Your task to perform on an android device: Go to Amazon Image 0: 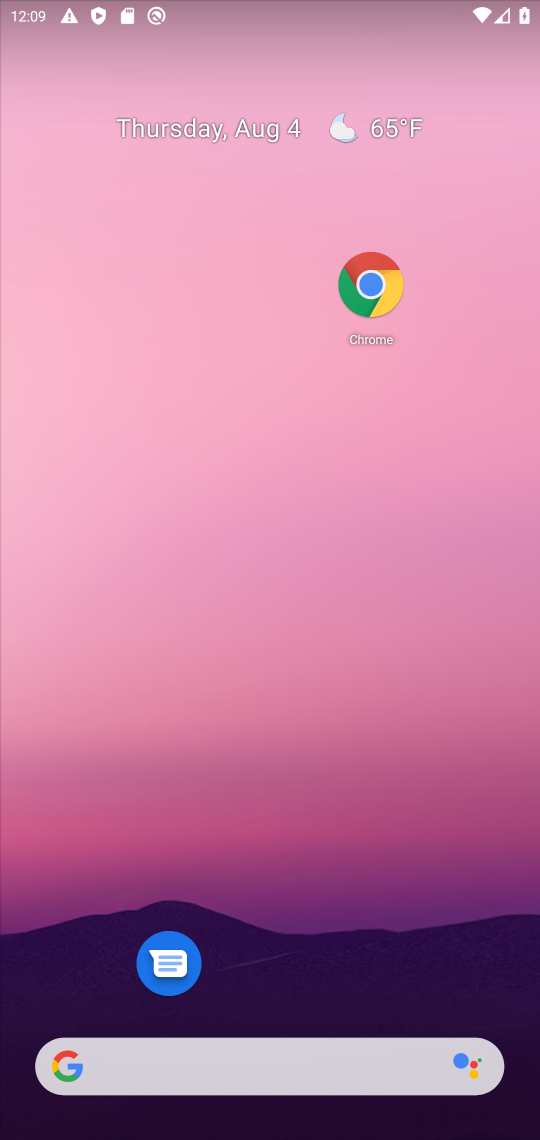
Step 0: drag from (246, 905) to (272, 258)
Your task to perform on an android device: Go to Amazon Image 1: 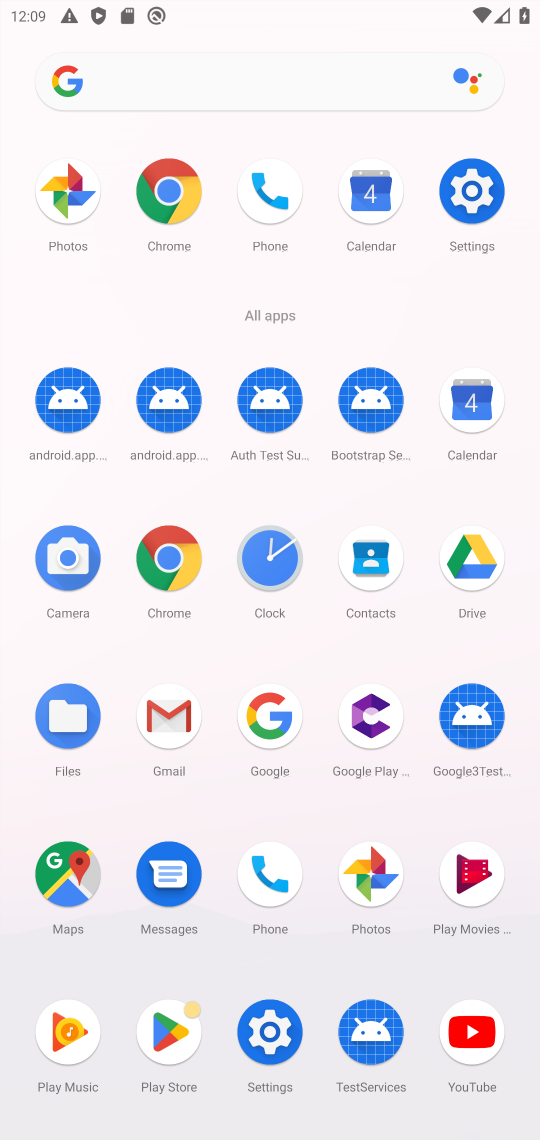
Step 1: click (174, 180)
Your task to perform on an android device: Go to Amazon Image 2: 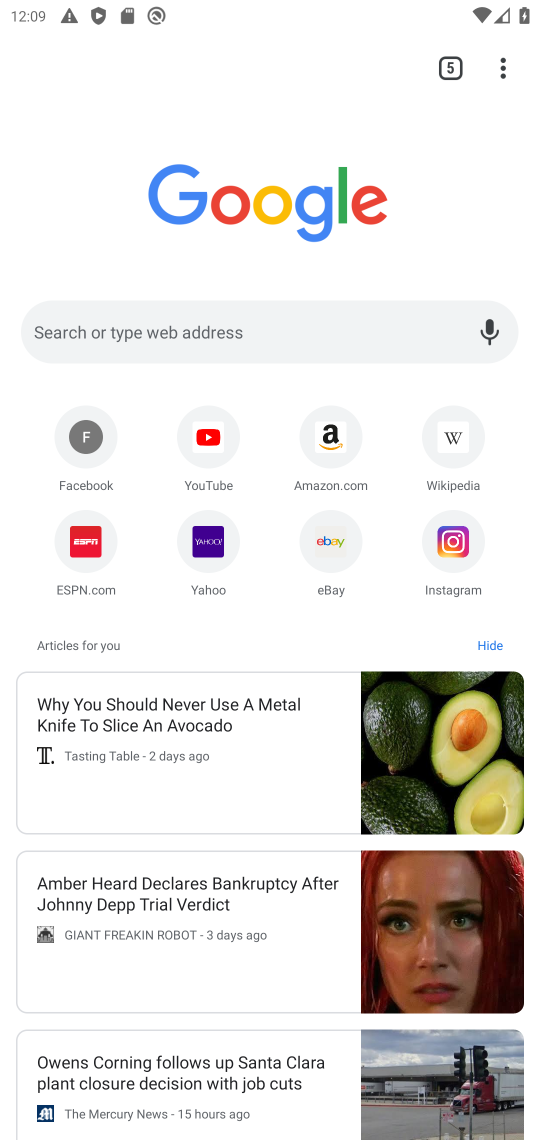
Step 2: click (342, 422)
Your task to perform on an android device: Go to Amazon Image 3: 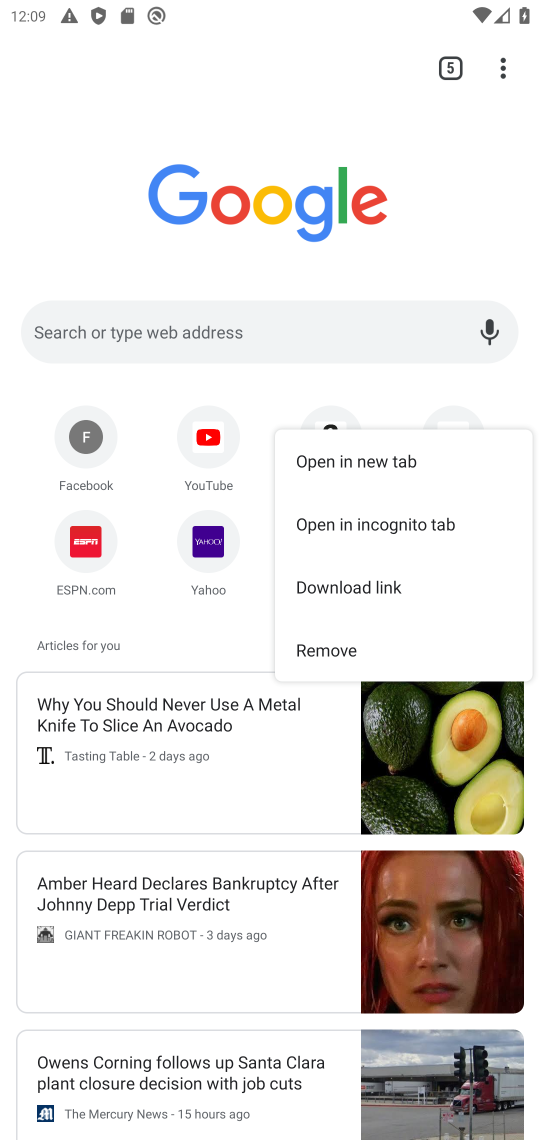
Step 3: click (334, 425)
Your task to perform on an android device: Go to Amazon Image 4: 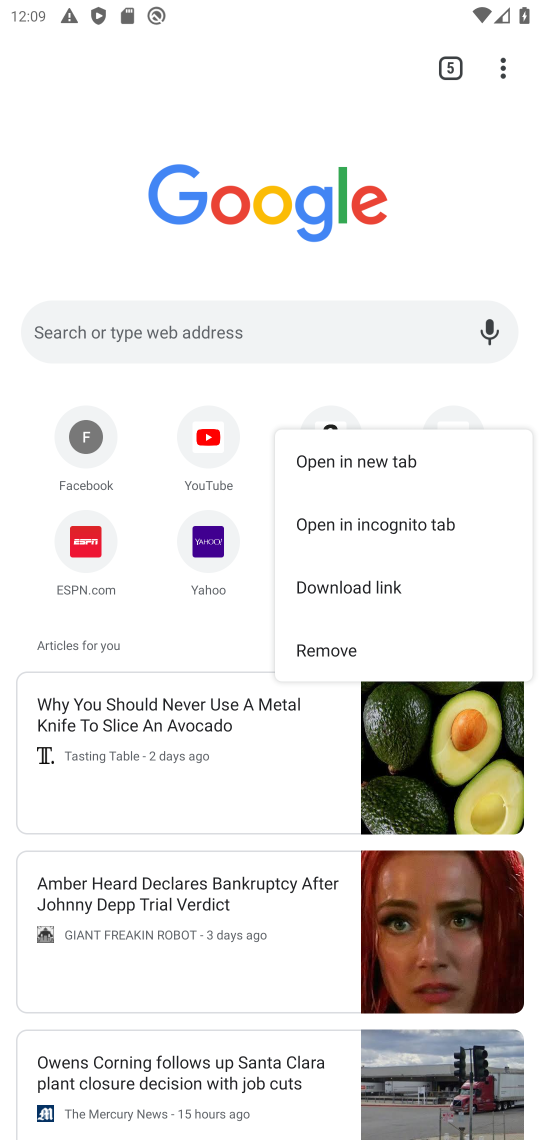
Step 4: click (334, 425)
Your task to perform on an android device: Go to Amazon Image 5: 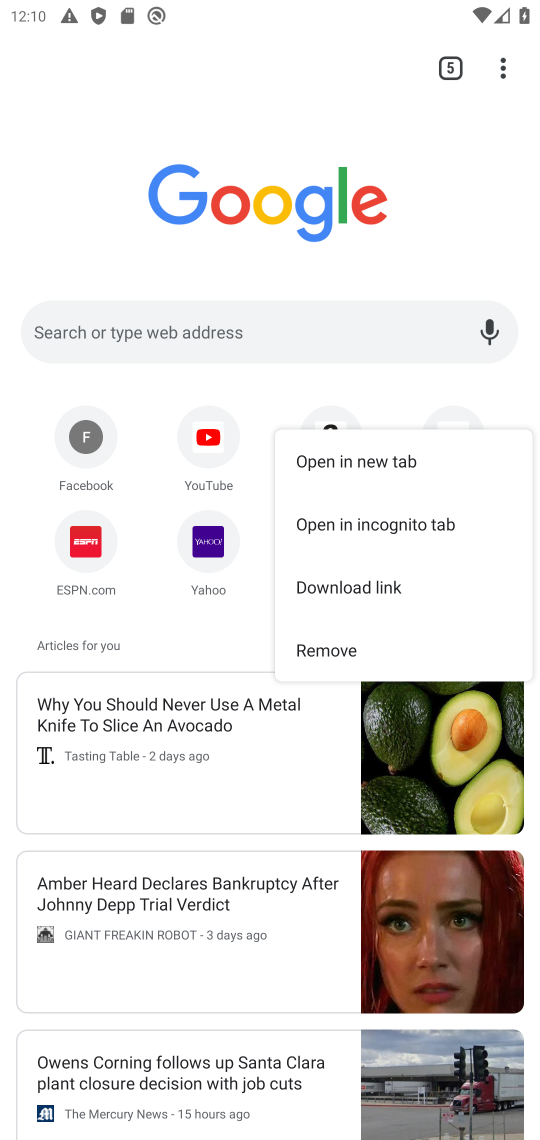
Step 5: click (368, 451)
Your task to perform on an android device: Go to Amazon Image 6: 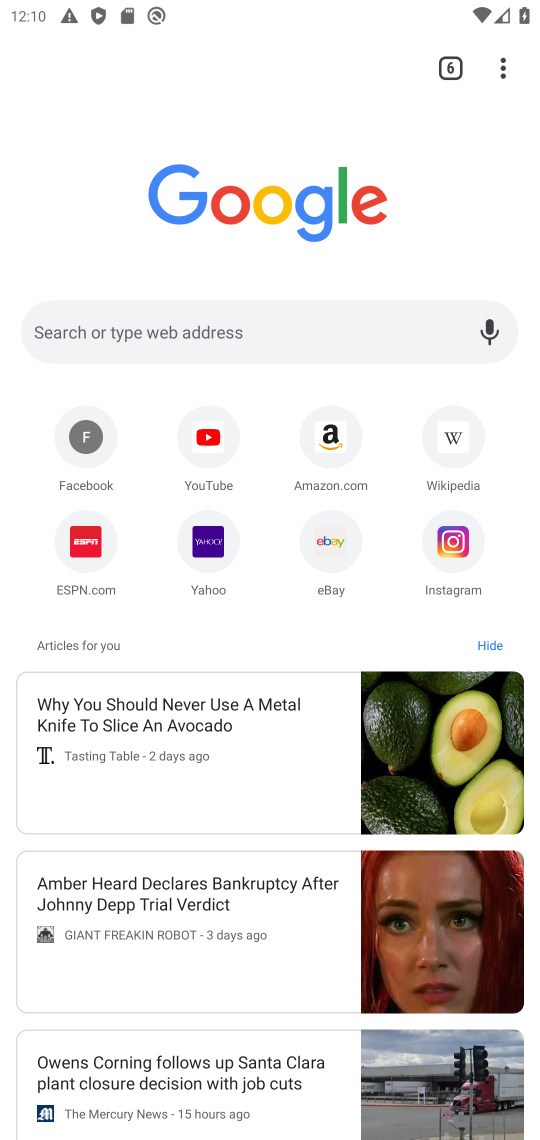
Step 6: click (340, 437)
Your task to perform on an android device: Go to Amazon Image 7: 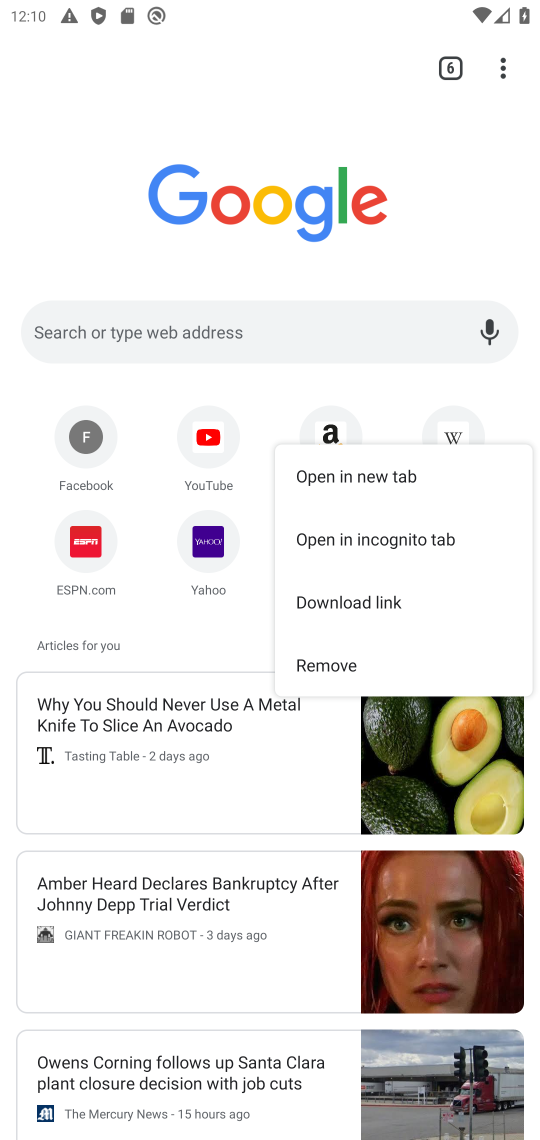
Step 7: click (329, 425)
Your task to perform on an android device: Go to Amazon Image 8: 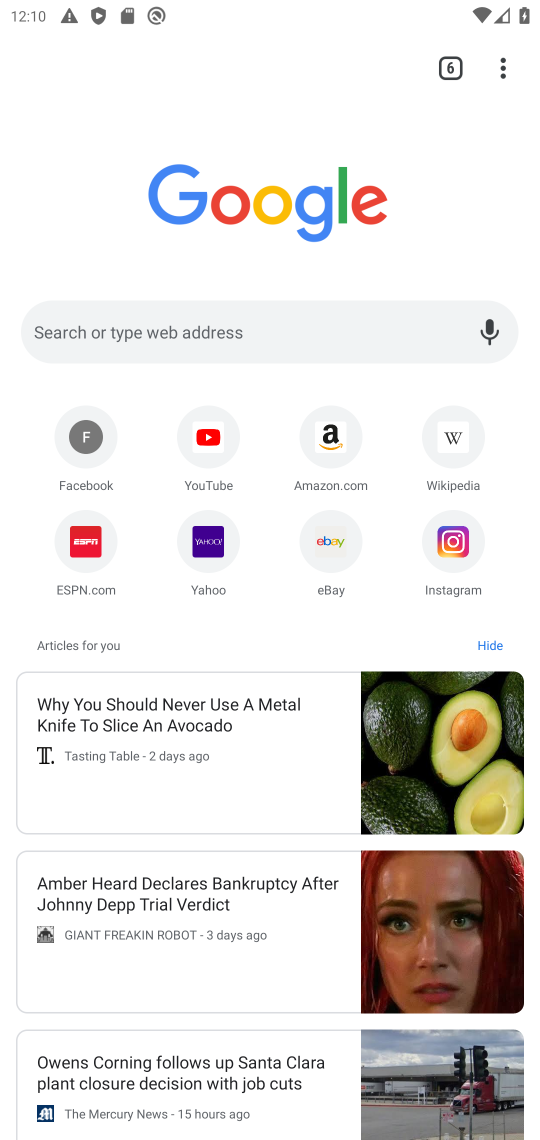
Step 8: click (334, 442)
Your task to perform on an android device: Go to Amazon Image 9: 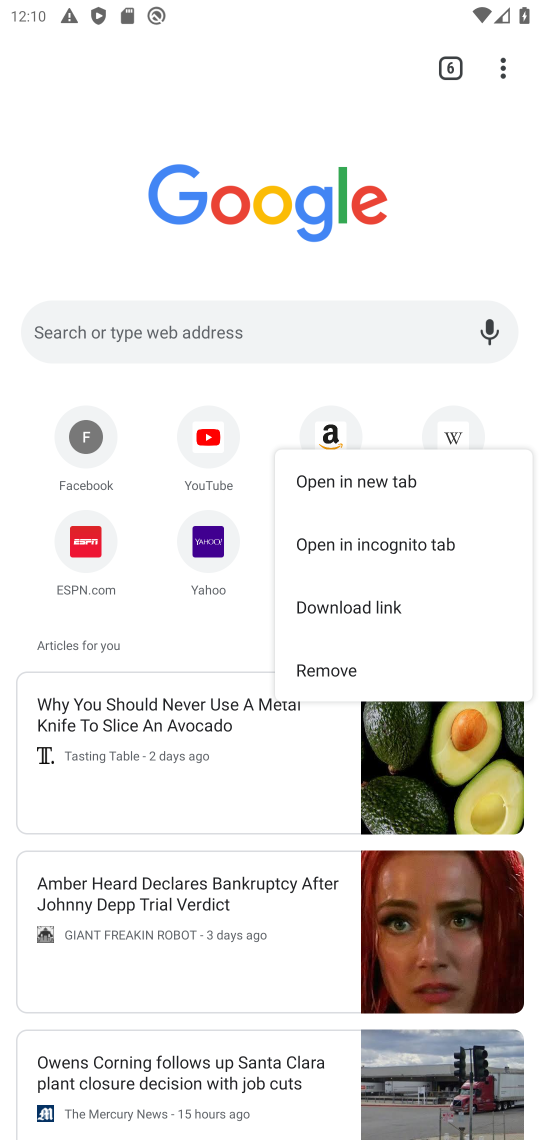
Step 9: click (331, 421)
Your task to perform on an android device: Go to Amazon Image 10: 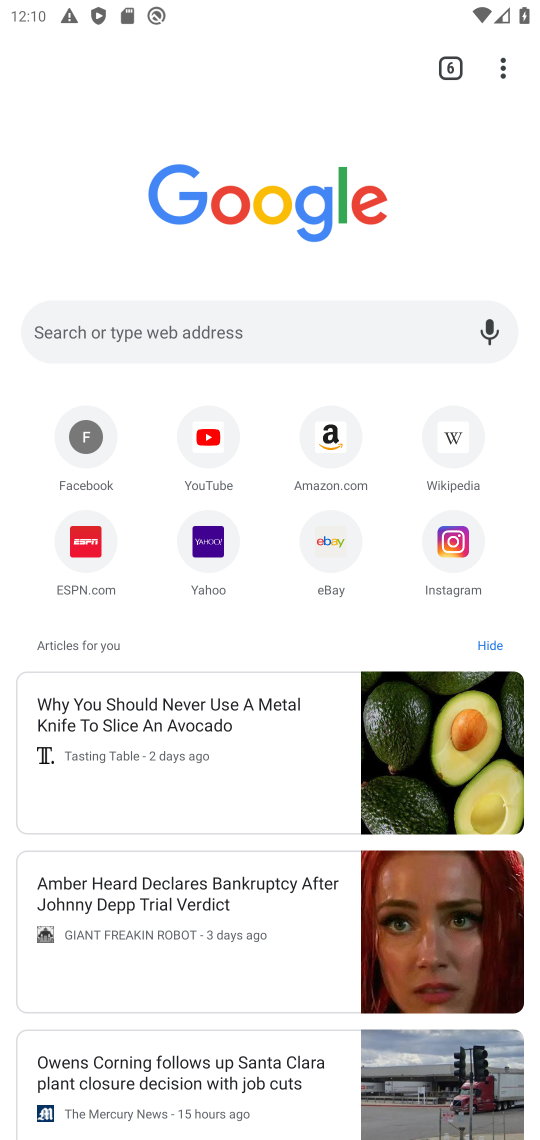
Step 10: click (331, 433)
Your task to perform on an android device: Go to Amazon Image 11: 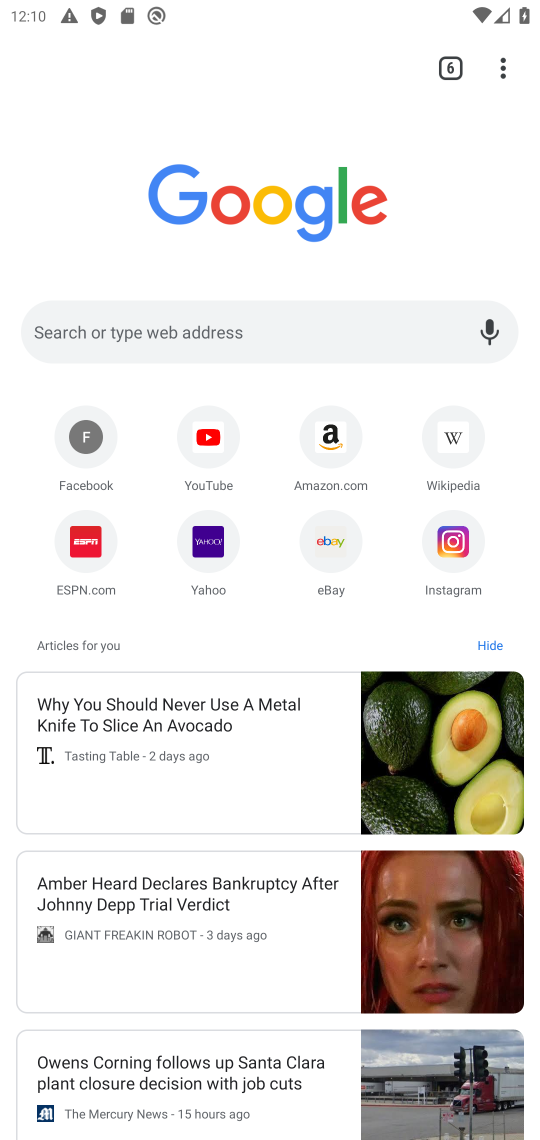
Step 11: click (325, 453)
Your task to perform on an android device: Go to Amazon Image 12: 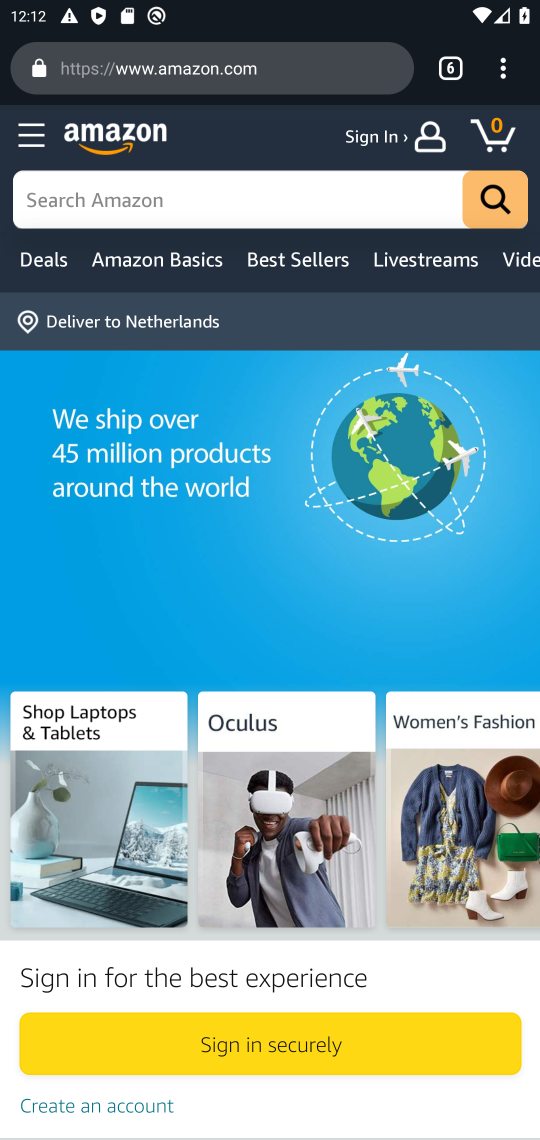
Step 12: task complete